Your task to perform on an android device: What is the news today? Image 0: 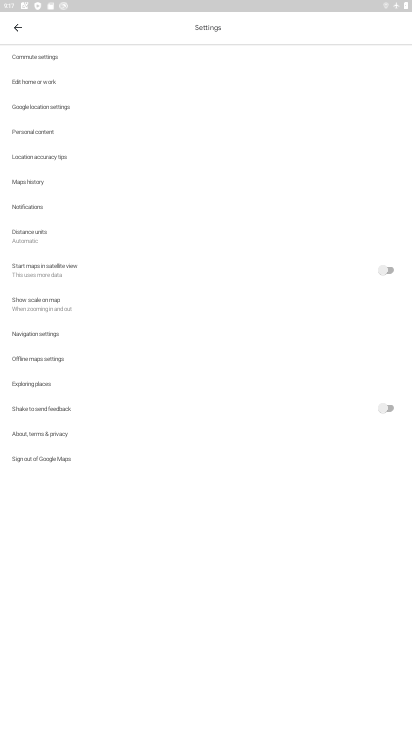
Step 0: press home button
Your task to perform on an android device: What is the news today? Image 1: 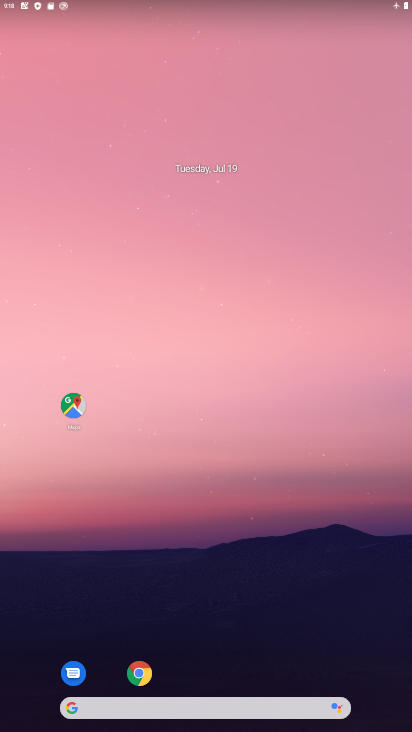
Step 1: drag from (204, 663) to (210, 109)
Your task to perform on an android device: What is the news today? Image 2: 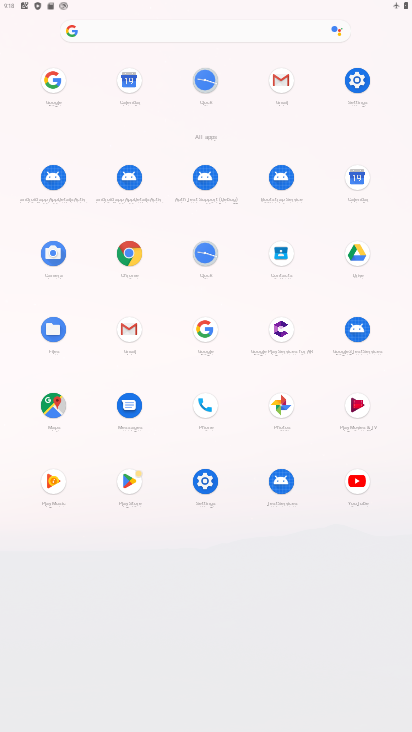
Step 2: click (207, 334)
Your task to perform on an android device: What is the news today? Image 3: 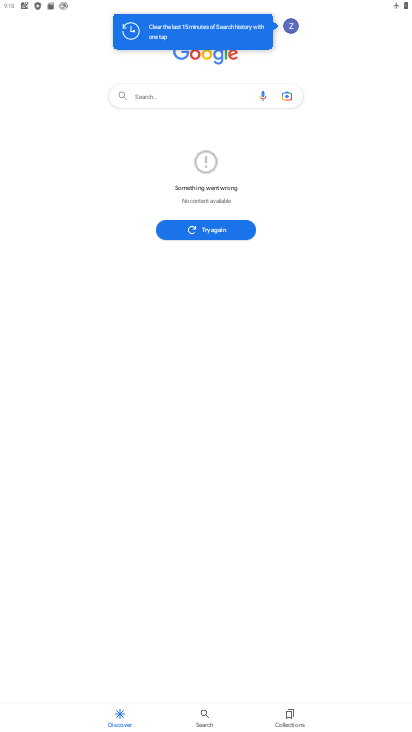
Step 3: click (184, 92)
Your task to perform on an android device: What is the news today? Image 4: 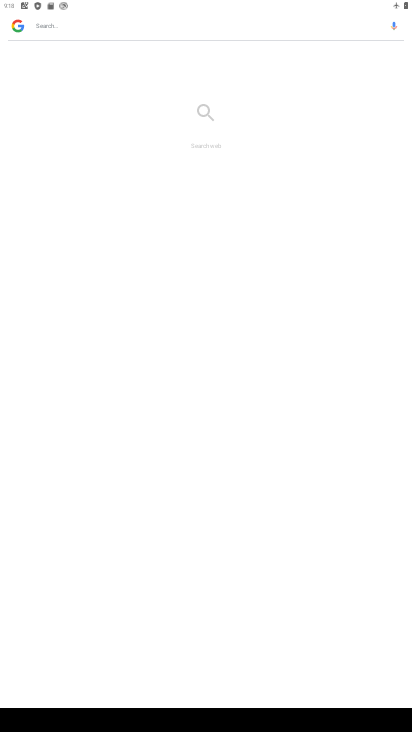
Step 4: type "news"
Your task to perform on an android device: What is the news today? Image 5: 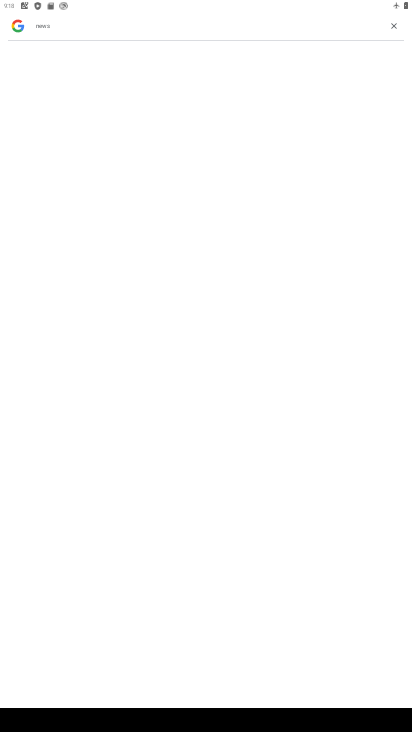
Step 5: task complete